Your task to perform on an android device: turn off airplane mode Image 0: 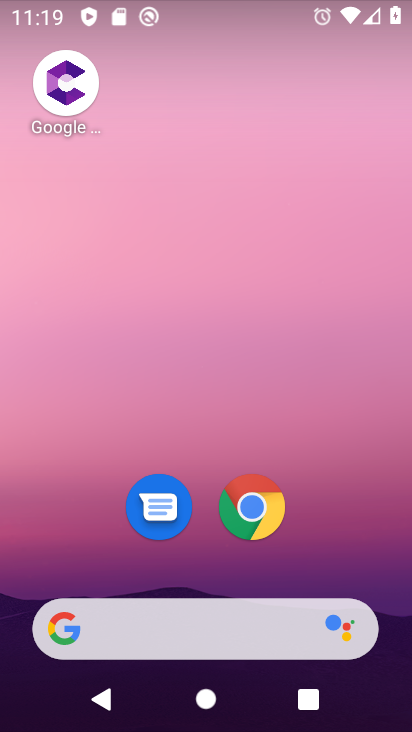
Step 0: drag from (209, 575) to (227, 122)
Your task to perform on an android device: turn off airplane mode Image 1: 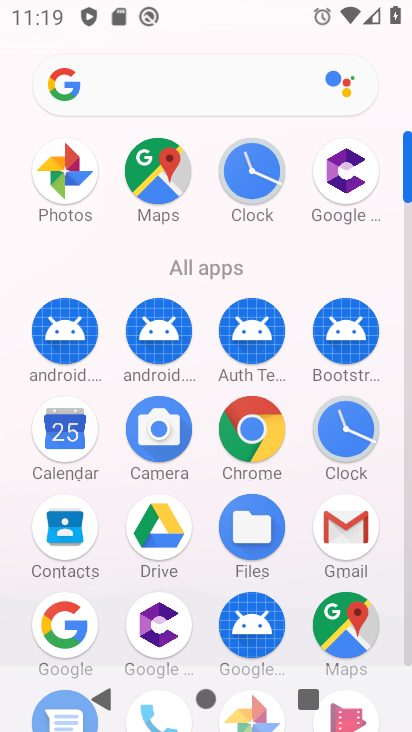
Step 1: drag from (208, 540) to (163, 106)
Your task to perform on an android device: turn off airplane mode Image 2: 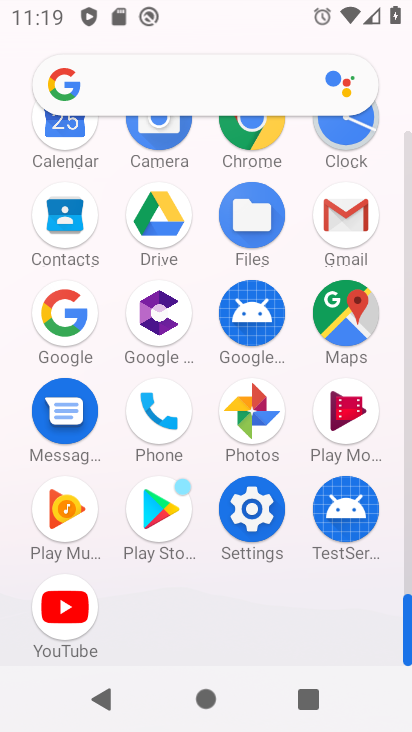
Step 2: click (247, 524)
Your task to perform on an android device: turn off airplane mode Image 3: 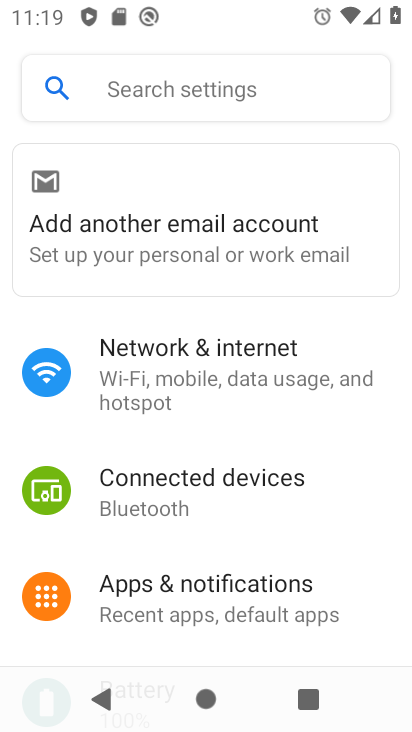
Step 3: click (232, 363)
Your task to perform on an android device: turn off airplane mode Image 4: 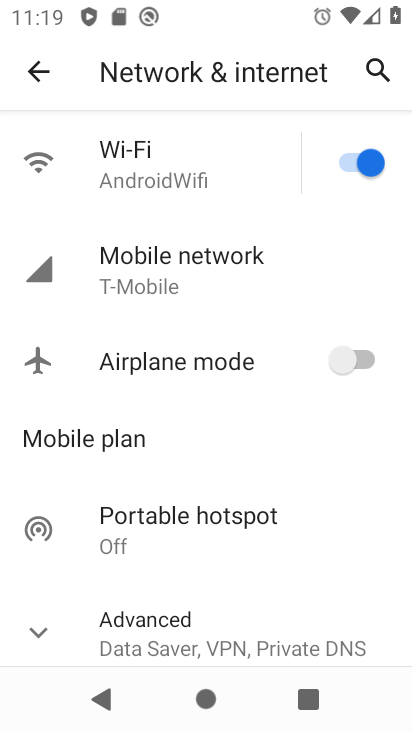
Step 4: task complete